Your task to perform on an android device: set the timer Image 0: 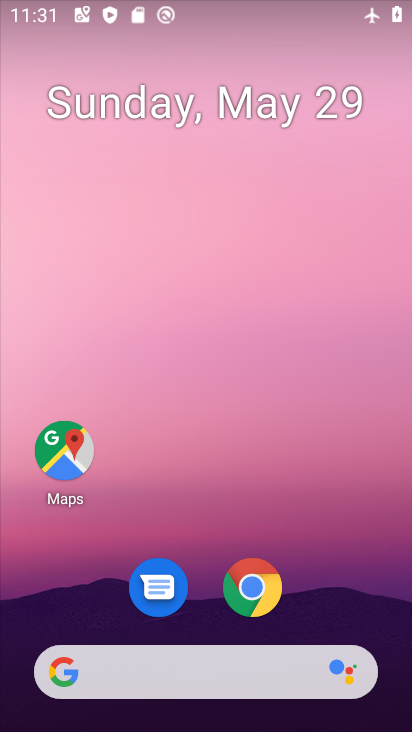
Step 0: drag from (324, 543) to (253, 62)
Your task to perform on an android device: set the timer Image 1: 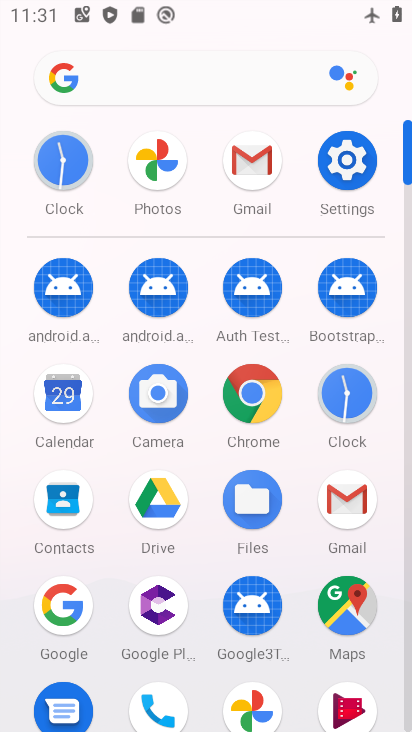
Step 1: click (353, 388)
Your task to perform on an android device: set the timer Image 2: 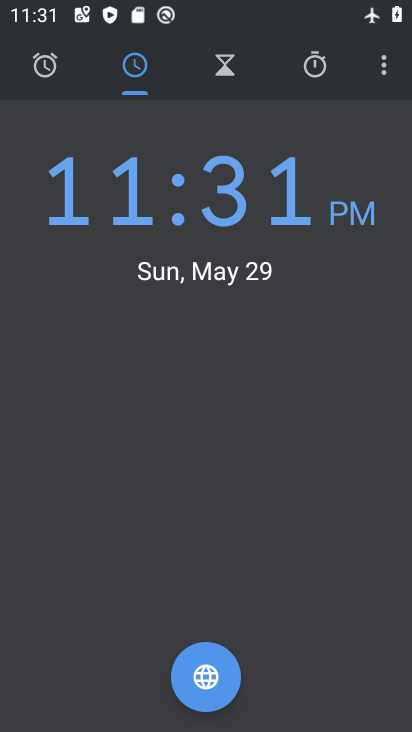
Step 2: click (231, 64)
Your task to perform on an android device: set the timer Image 3: 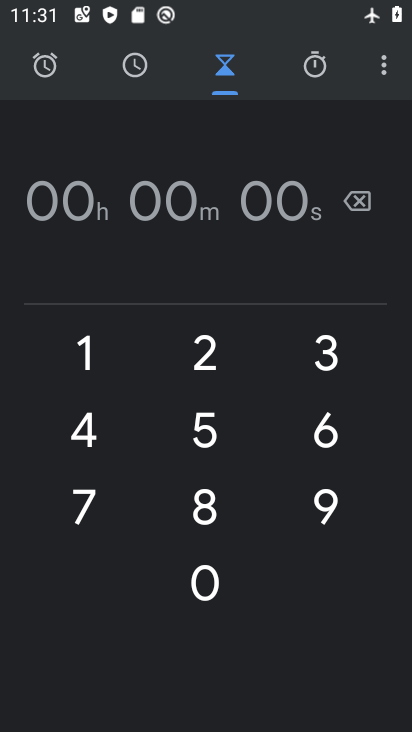
Step 3: click (192, 420)
Your task to perform on an android device: set the timer Image 4: 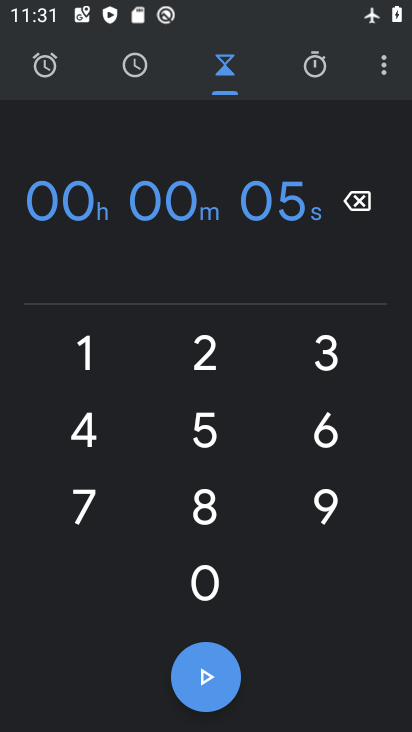
Step 4: task complete